Your task to perform on an android device: delete a single message in the gmail app Image 0: 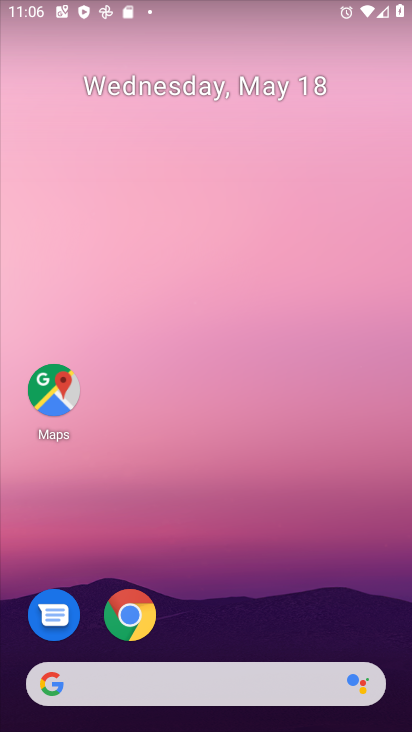
Step 0: drag from (188, 662) to (211, 289)
Your task to perform on an android device: delete a single message in the gmail app Image 1: 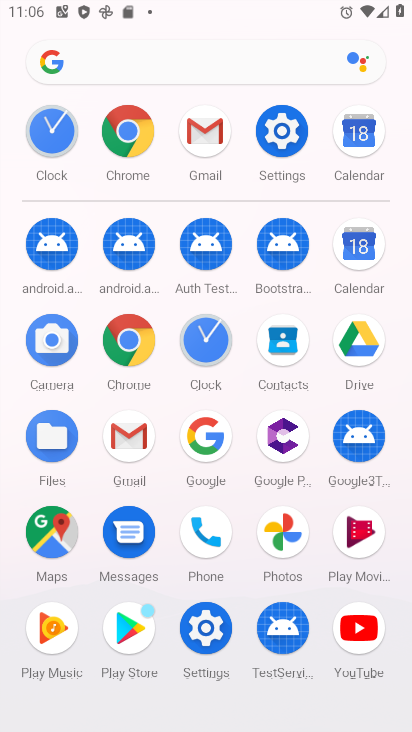
Step 1: click (200, 110)
Your task to perform on an android device: delete a single message in the gmail app Image 2: 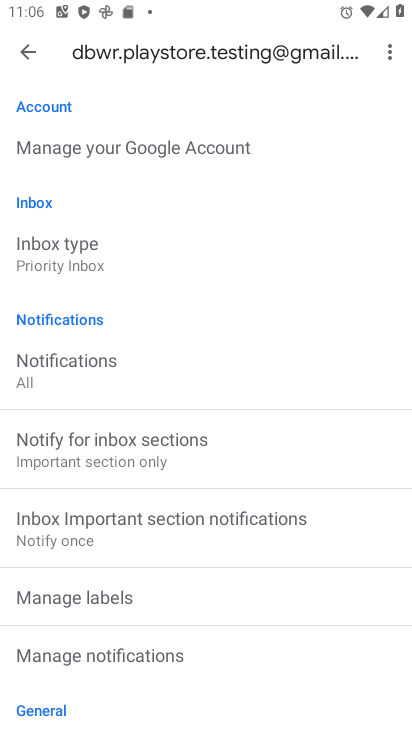
Step 2: click (16, 53)
Your task to perform on an android device: delete a single message in the gmail app Image 3: 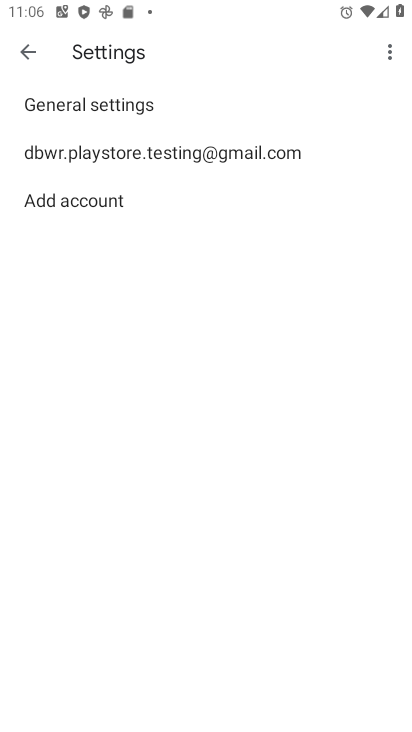
Step 3: click (16, 53)
Your task to perform on an android device: delete a single message in the gmail app Image 4: 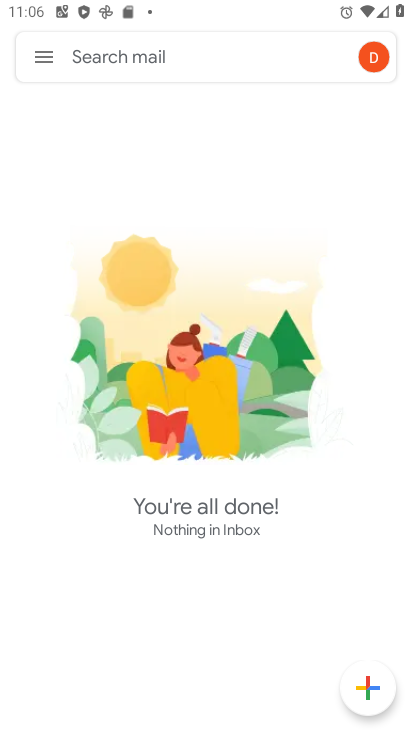
Step 4: task complete